Your task to perform on an android device: change text size in settings app Image 0: 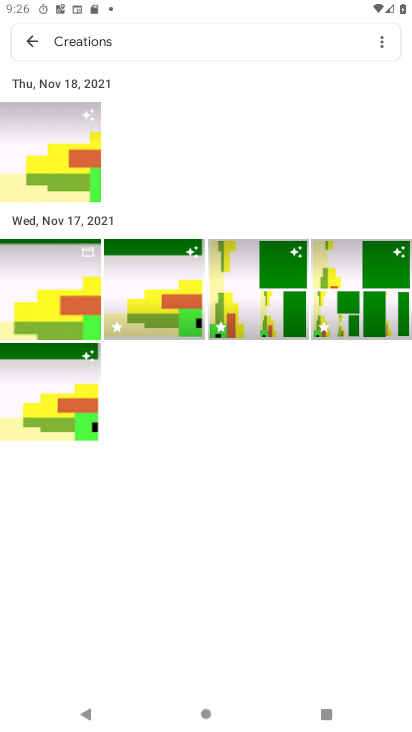
Step 0: press home button
Your task to perform on an android device: change text size in settings app Image 1: 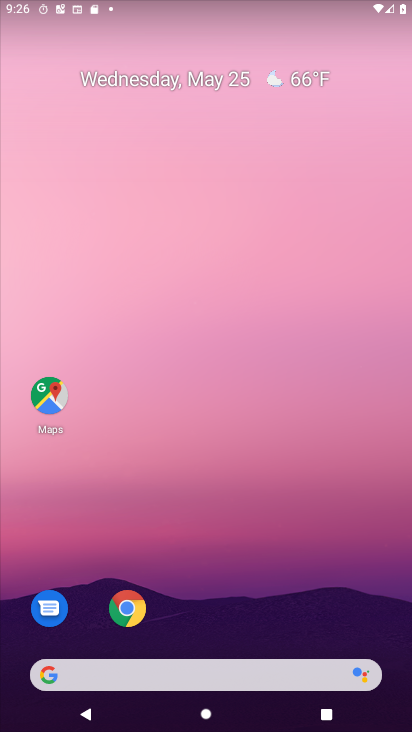
Step 1: drag from (235, 702) to (235, 174)
Your task to perform on an android device: change text size in settings app Image 2: 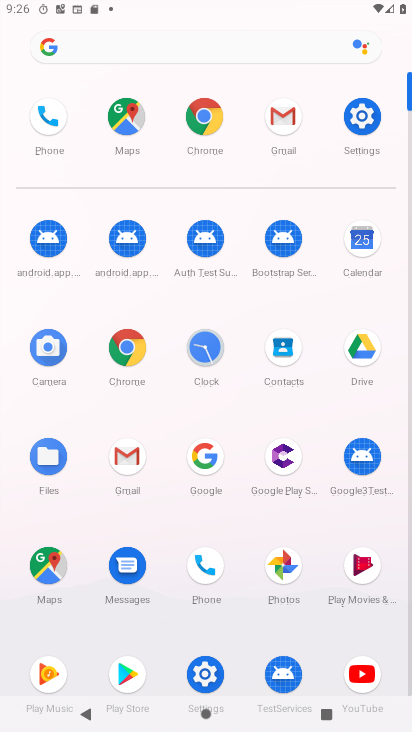
Step 2: click (202, 674)
Your task to perform on an android device: change text size in settings app Image 3: 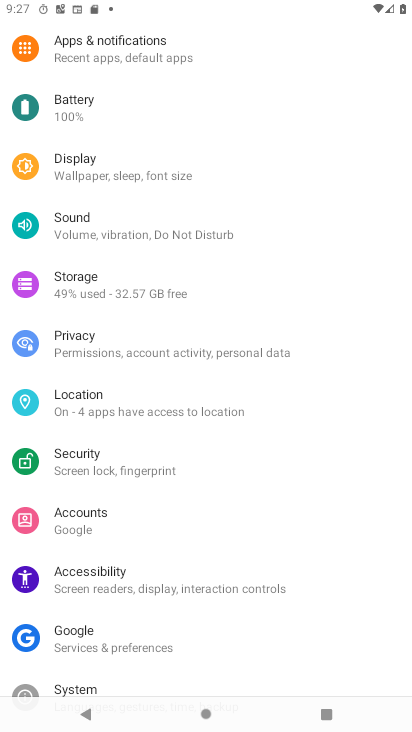
Step 3: click (150, 173)
Your task to perform on an android device: change text size in settings app Image 4: 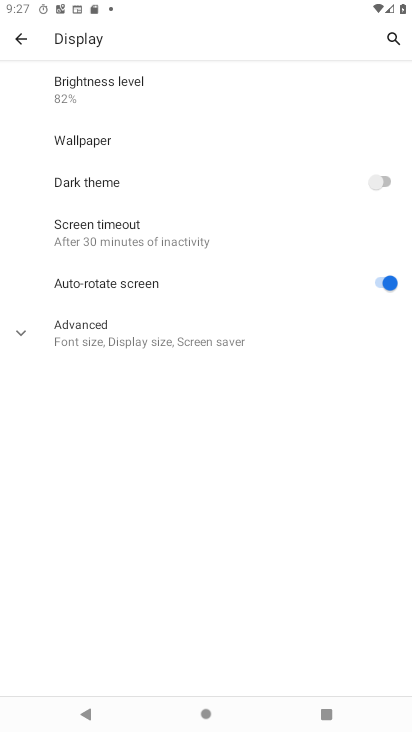
Step 4: click (107, 332)
Your task to perform on an android device: change text size in settings app Image 5: 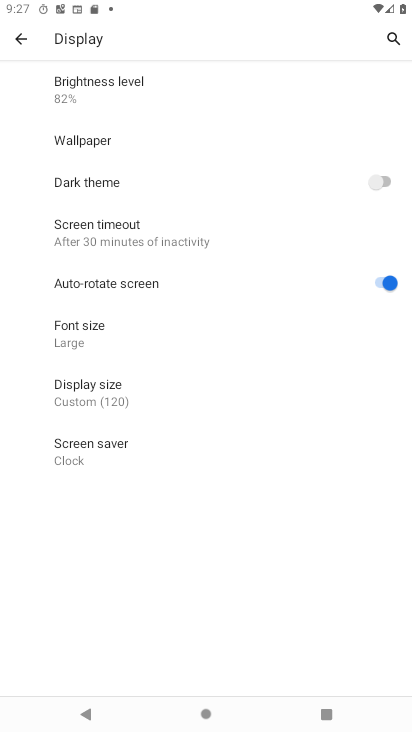
Step 5: click (85, 326)
Your task to perform on an android device: change text size in settings app Image 6: 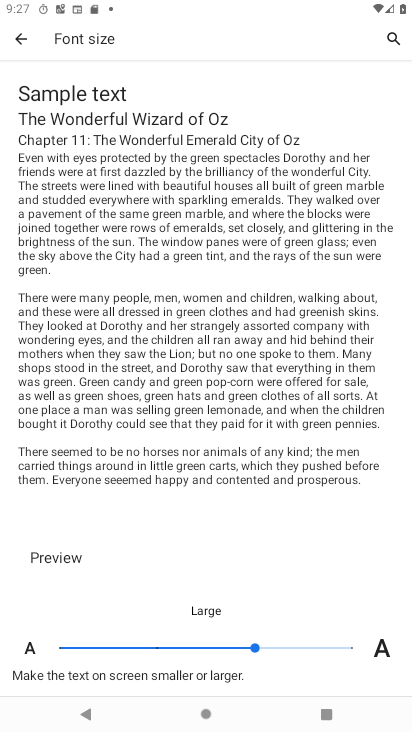
Step 6: click (173, 644)
Your task to perform on an android device: change text size in settings app Image 7: 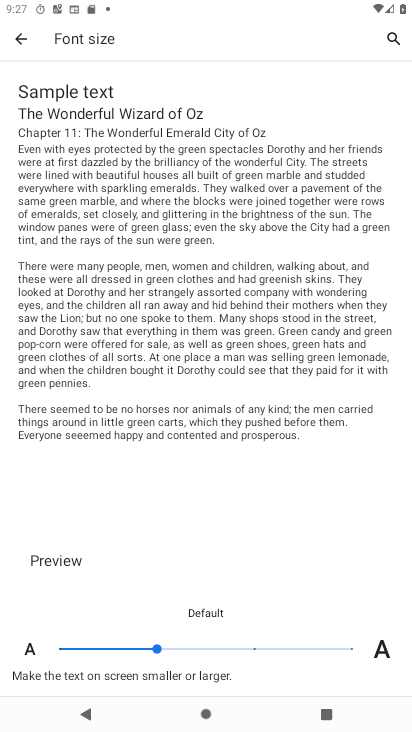
Step 7: task complete